Your task to perform on an android device: turn on wifi Image 0: 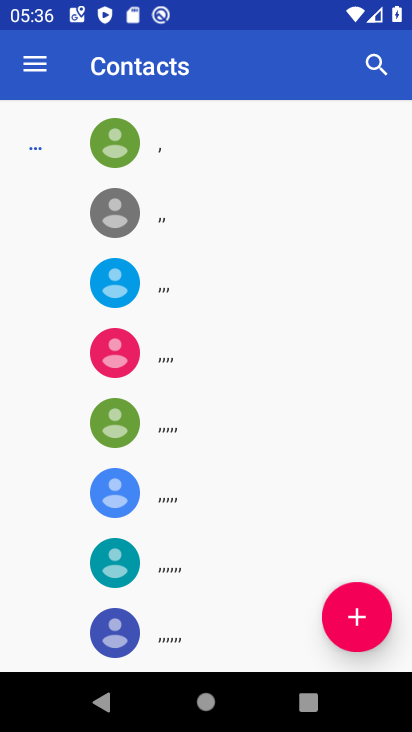
Step 0: press home button
Your task to perform on an android device: turn on wifi Image 1: 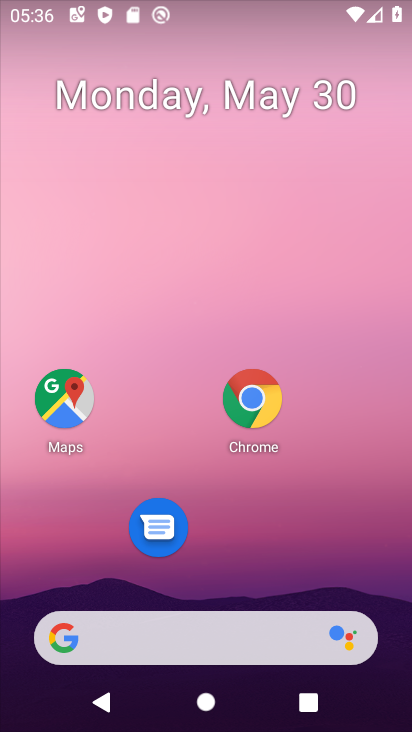
Step 1: drag from (234, 723) to (237, 15)
Your task to perform on an android device: turn on wifi Image 2: 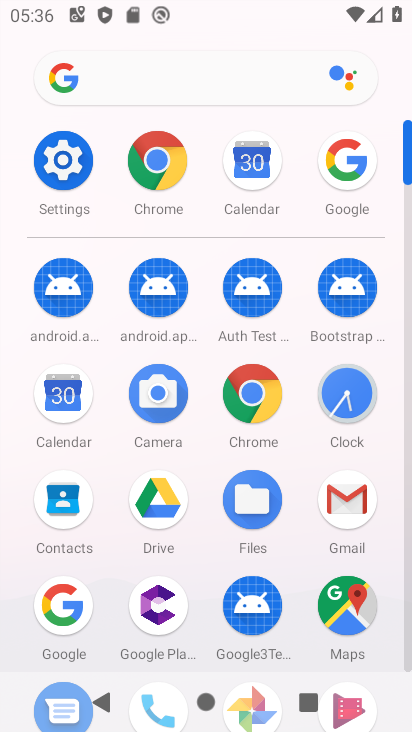
Step 2: click (58, 164)
Your task to perform on an android device: turn on wifi Image 3: 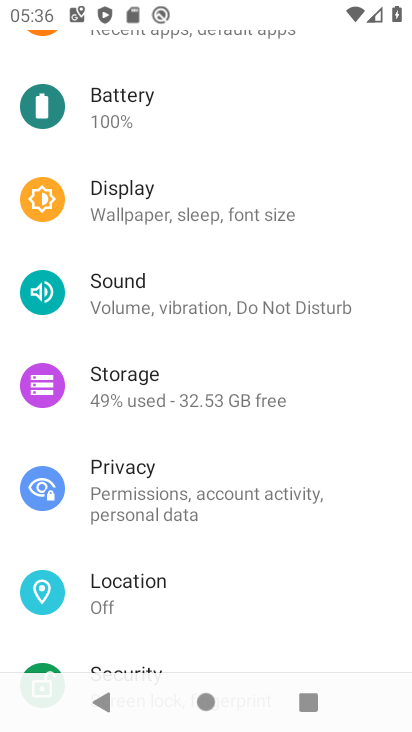
Step 3: drag from (246, 127) to (274, 550)
Your task to perform on an android device: turn on wifi Image 4: 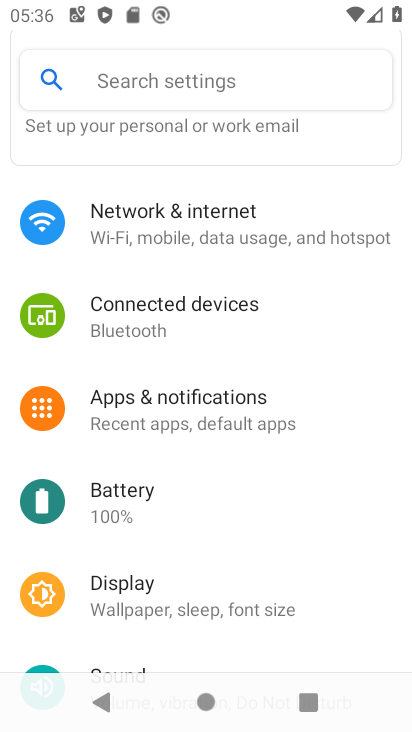
Step 4: drag from (206, 146) to (240, 532)
Your task to perform on an android device: turn on wifi Image 5: 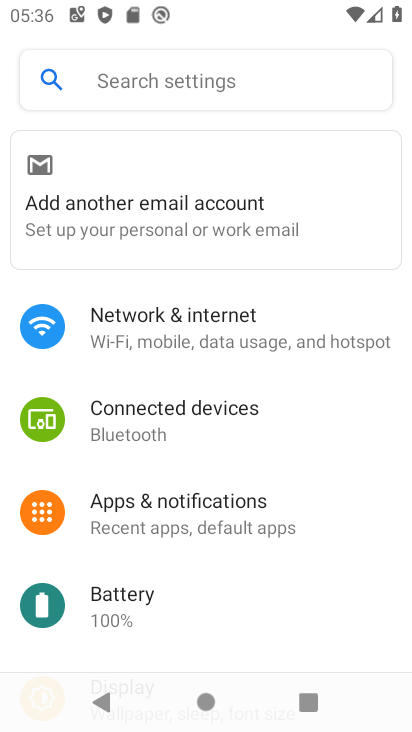
Step 5: click (158, 335)
Your task to perform on an android device: turn on wifi Image 6: 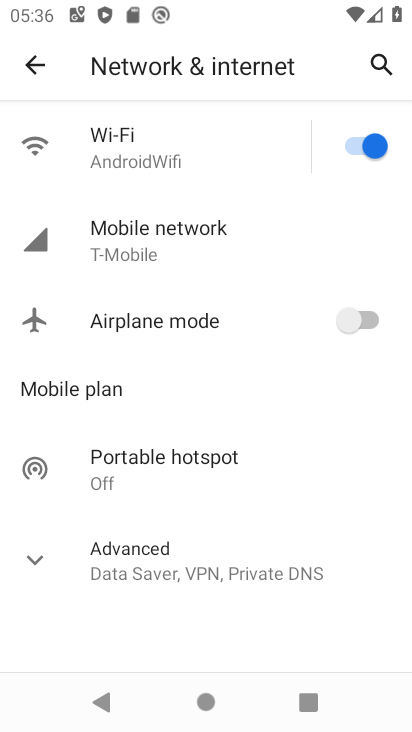
Step 6: task complete